Your task to perform on an android device: Open Reddit.com Image 0: 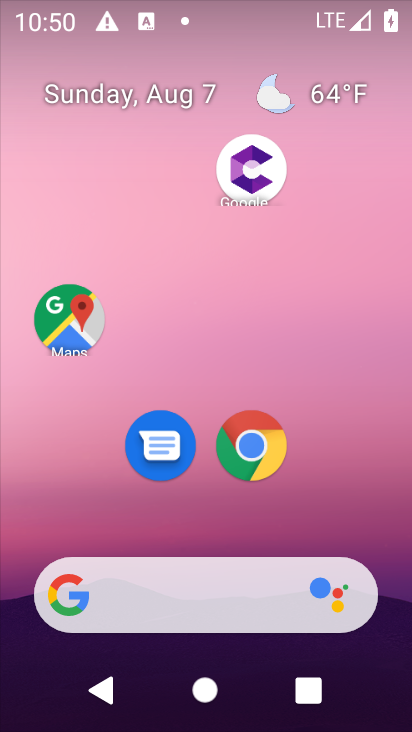
Step 0: drag from (215, 519) to (208, 77)
Your task to perform on an android device: Open Reddit.com Image 1: 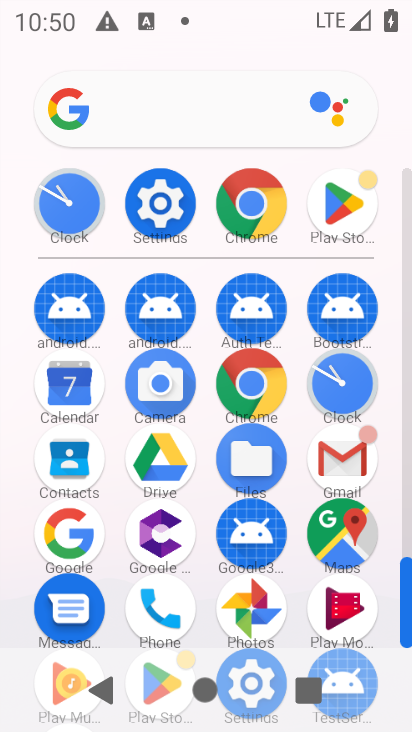
Step 1: click (248, 206)
Your task to perform on an android device: Open Reddit.com Image 2: 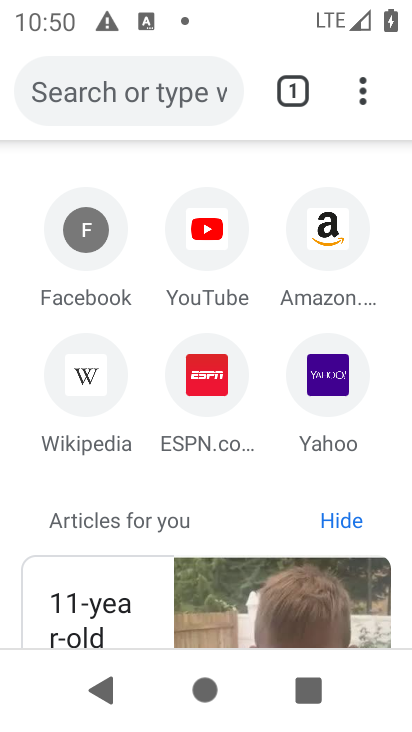
Step 2: click (96, 86)
Your task to perform on an android device: Open Reddit.com Image 3: 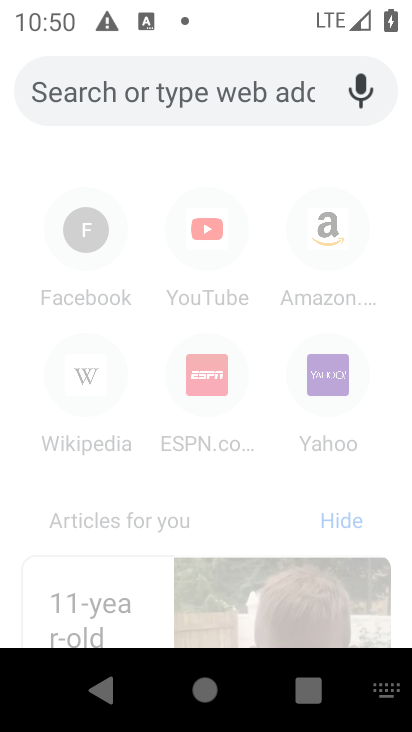
Step 3: type "reddit.com"
Your task to perform on an android device: Open Reddit.com Image 4: 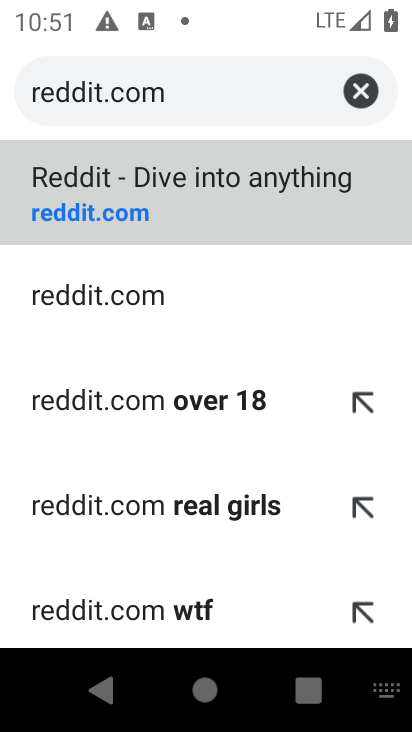
Step 4: click (82, 185)
Your task to perform on an android device: Open Reddit.com Image 5: 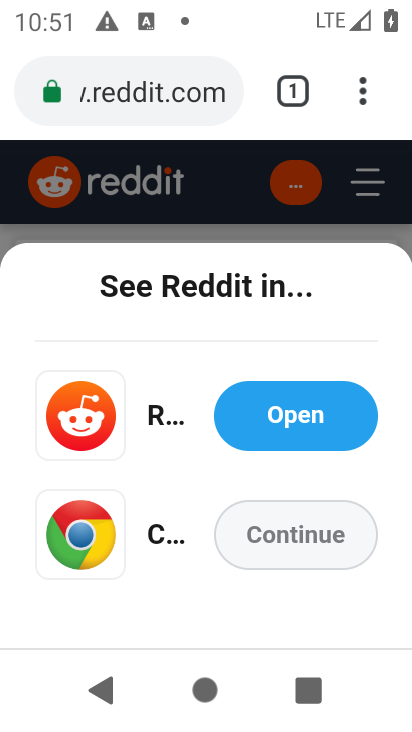
Step 5: click (299, 539)
Your task to perform on an android device: Open Reddit.com Image 6: 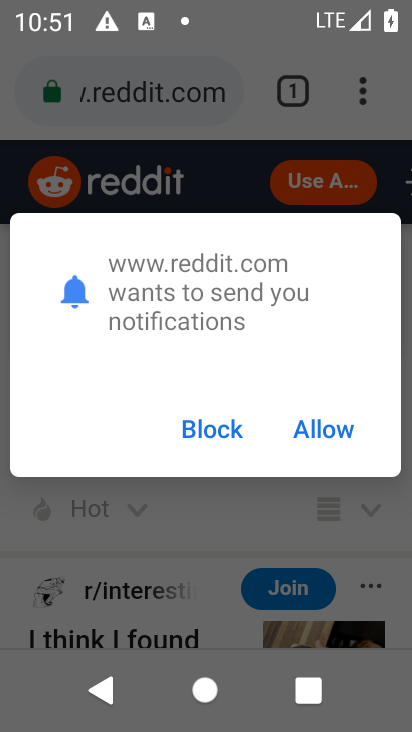
Step 6: click (327, 432)
Your task to perform on an android device: Open Reddit.com Image 7: 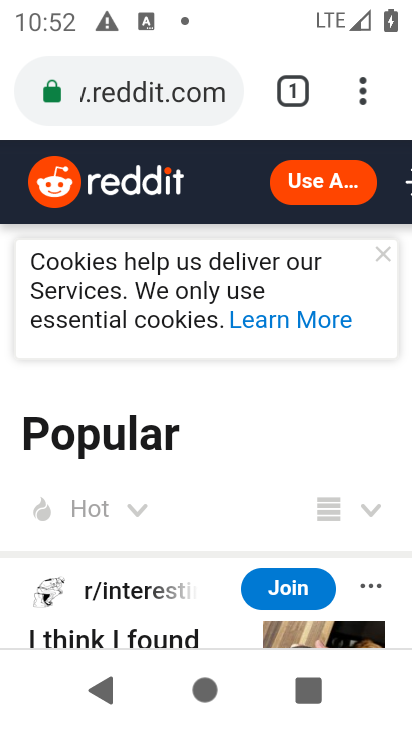
Step 7: task complete